Your task to perform on an android device: turn pop-ups on in chrome Image 0: 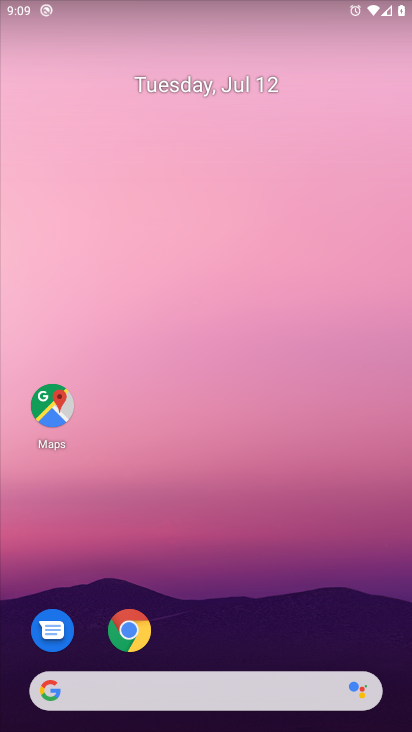
Step 0: press home button
Your task to perform on an android device: turn pop-ups on in chrome Image 1: 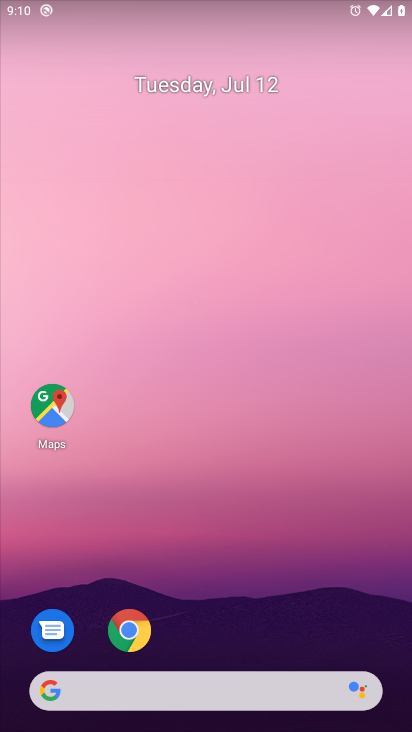
Step 1: drag from (214, 632) to (274, 132)
Your task to perform on an android device: turn pop-ups on in chrome Image 2: 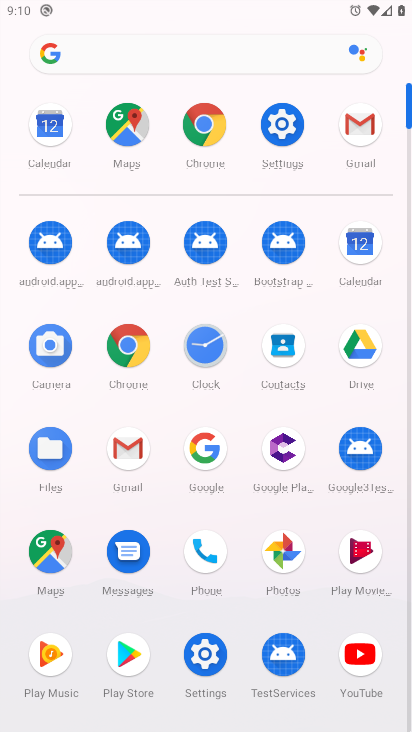
Step 2: click (208, 141)
Your task to perform on an android device: turn pop-ups on in chrome Image 3: 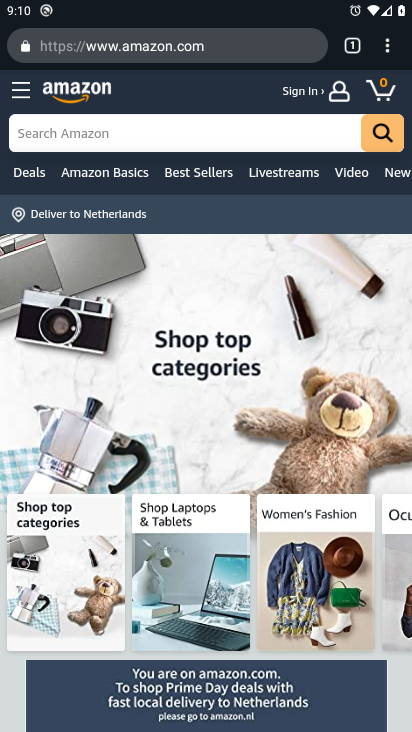
Step 3: drag from (388, 55) to (209, 547)
Your task to perform on an android device: turn pop-ups on in chrome Image 4: 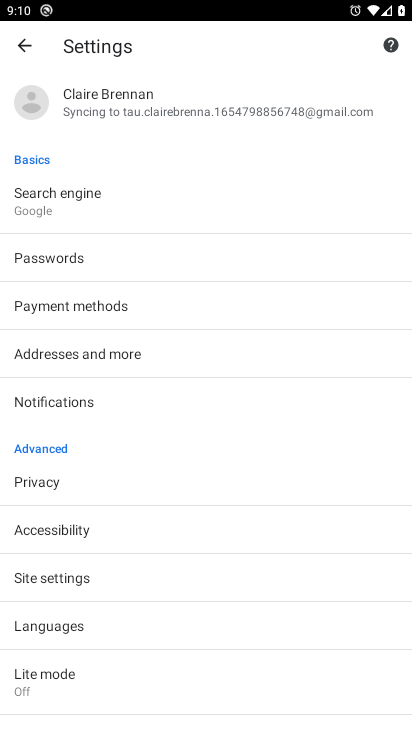
Step 4: click (49, 577)
Your task to perform on an android device: turn pop-ups on in chrome Image 5: 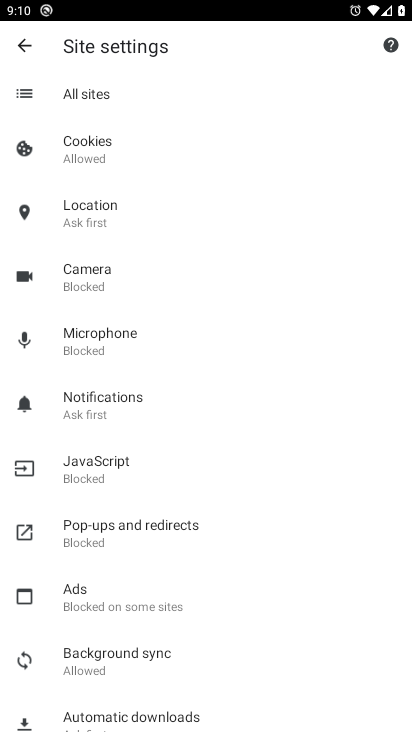
Step 5: click (89, 544)
Your task to perform on an android device: turn pop-ups on in chrome Image 6: 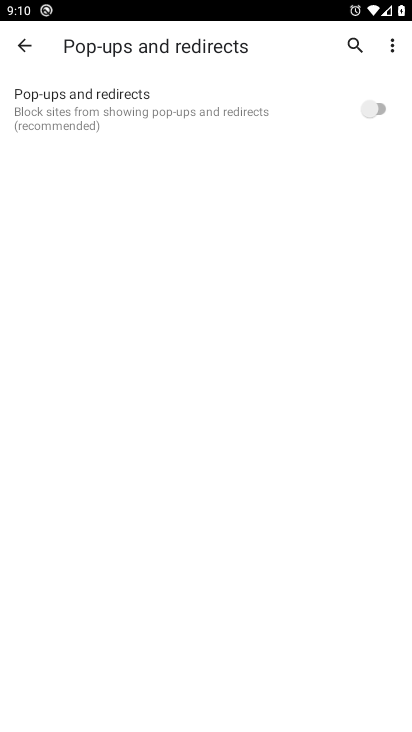
Step 6: click (379, 108)
Your task to perform on an android device: turn pop-ups on in chrome Image 7: 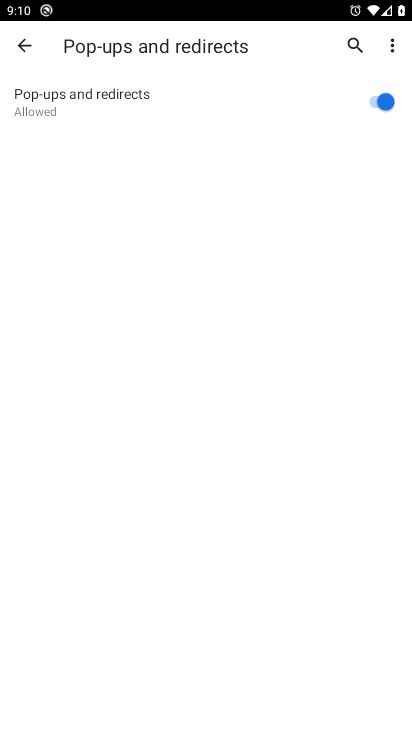
Step 7: task complete